Your task to perform on an android device: Toggle the flashlight Image 0: 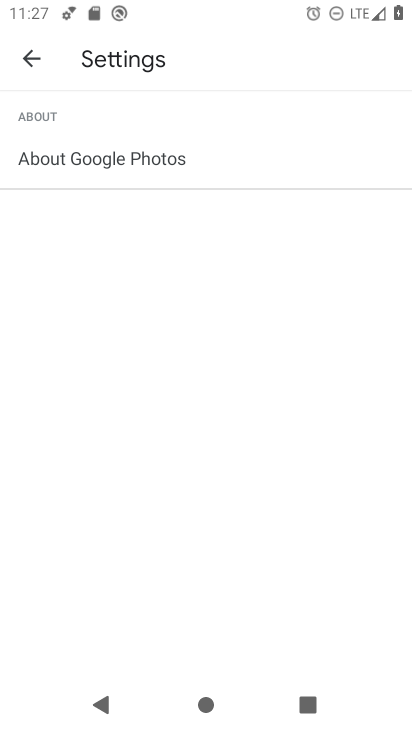
Step 0: press home button
Your task to perform on an android device: Toggle the flashlight Image 1: 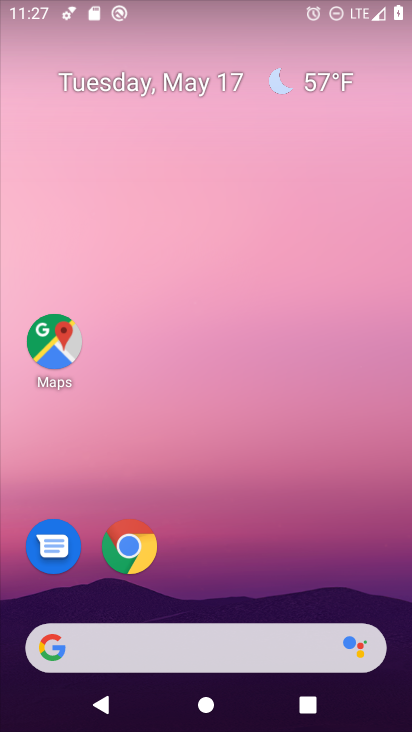
Step 1: task complete